Your task to perform on an android device: open wifi settings Image 0: 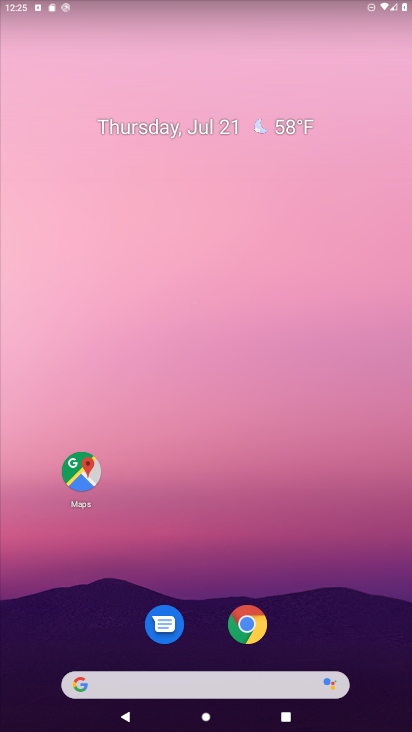
Step 0: drag from (221, 570) to (233, 202)
Your task to perform on an android device: open wifi settings Image 1: 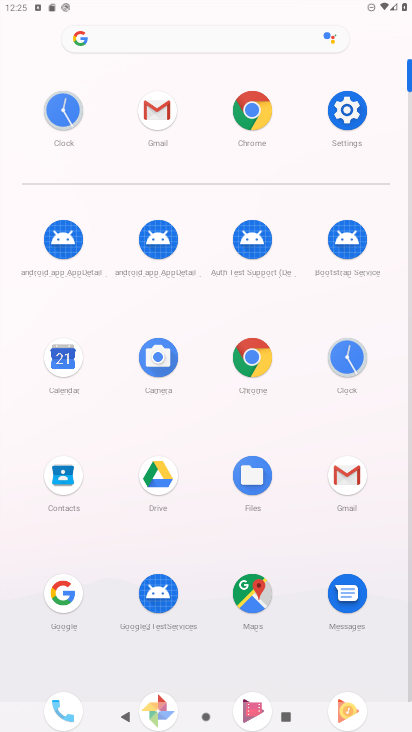
Step 1: click (339, 121)
Your task to perform on an android device: open wifi settings Image 2: 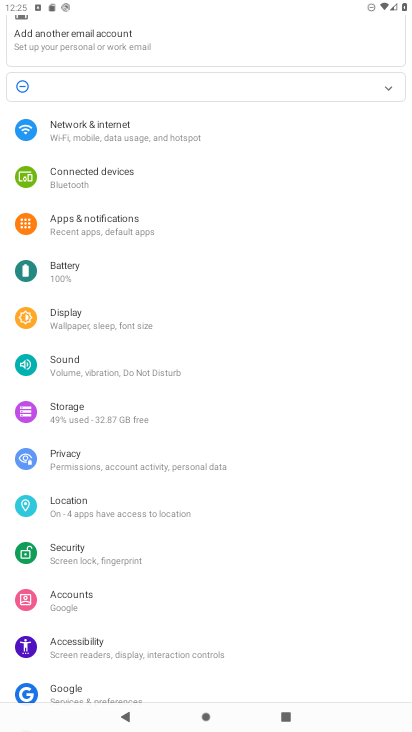
Step 2: click (107, 138)
Your task to perform on an android device: open wifi settings Image 3: 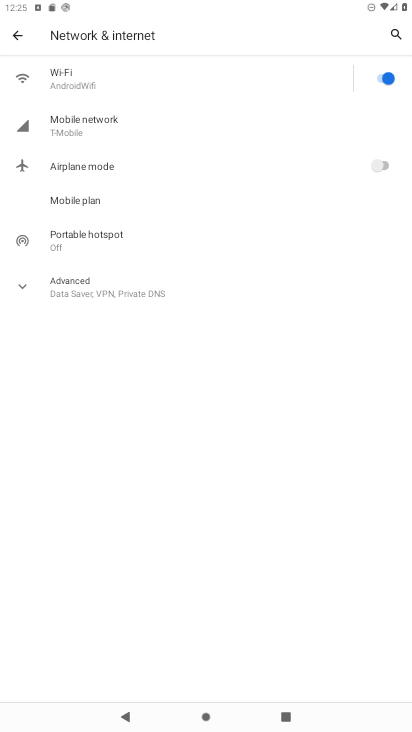
Step 3: task complete